Your task to perform on an android device: Go to privacy settings Image 0: 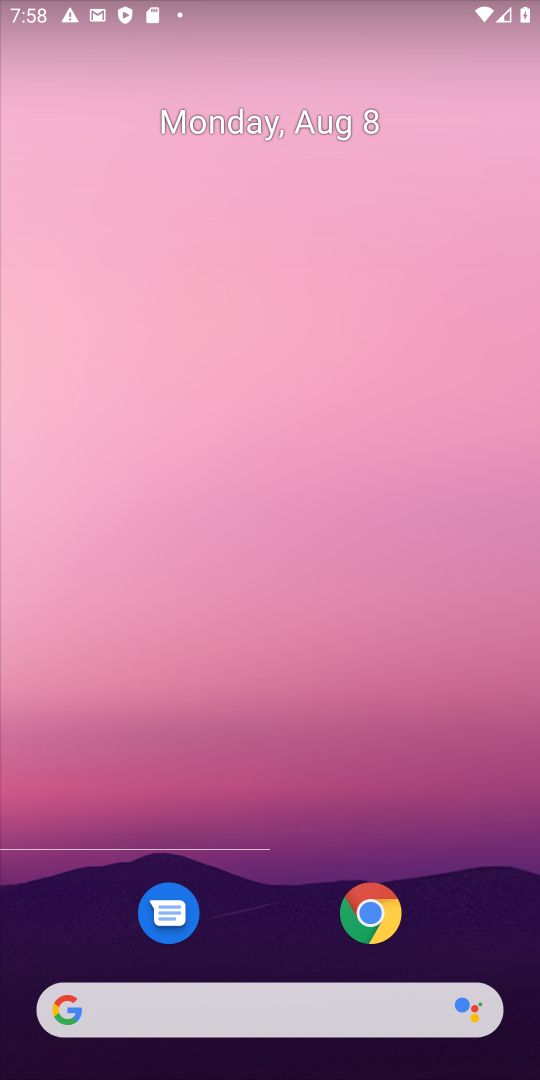
Step 0: press home button
Your task to perform on an android device: Go to privacy settings Image 1: 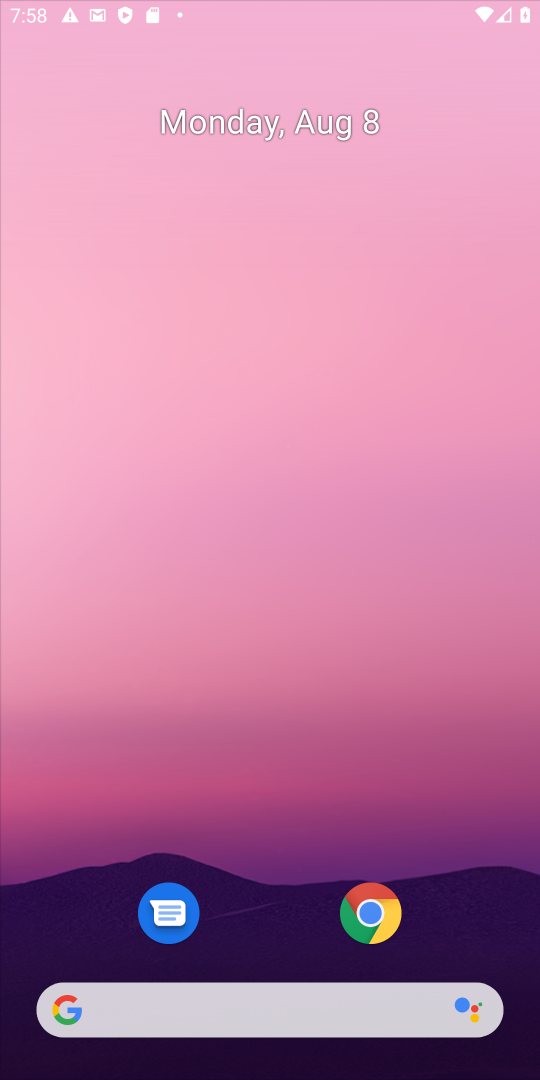
Step 1: drag from (286, 912) to (279, 661)
Your task to perform on an android device: Go to privacy settings Image 2: 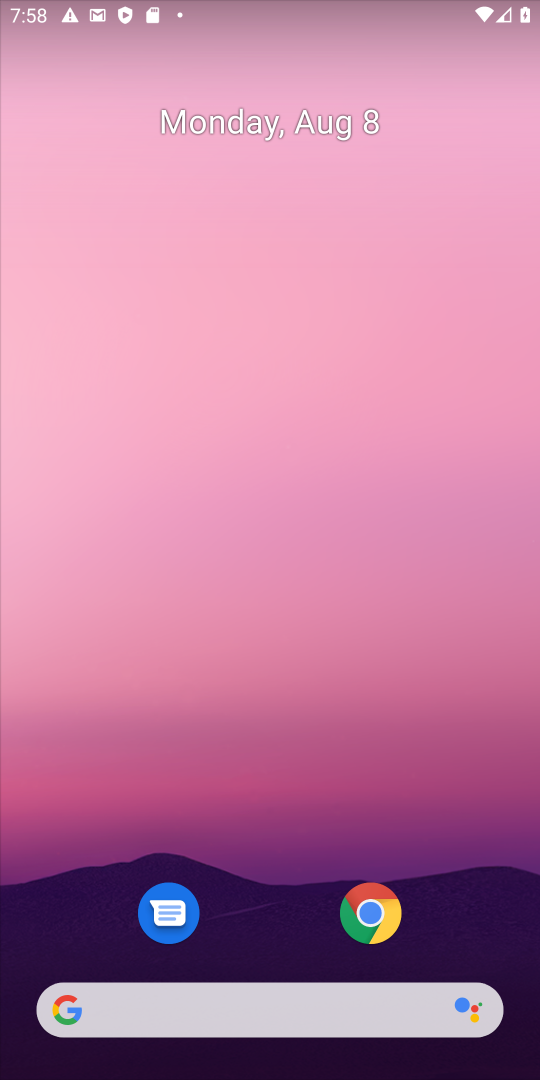
Step 2: drag from (279, 959) to (251, 108)
Your task to perform on an android device: Go to privacy settings Image 3: 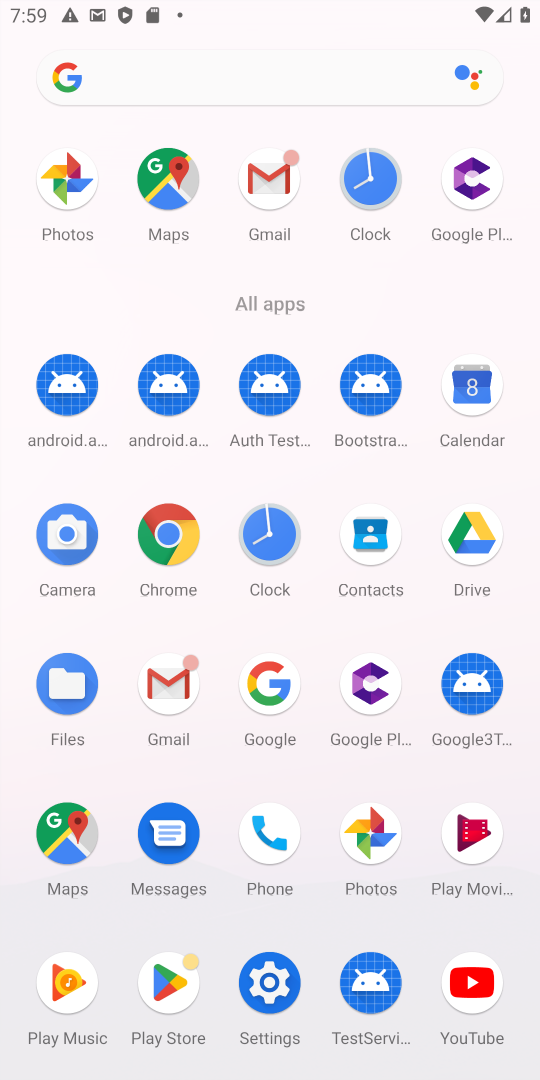
Step 3: click (258, 1019)
Your task to perform on an android device: Go to privacy settings Image 4: 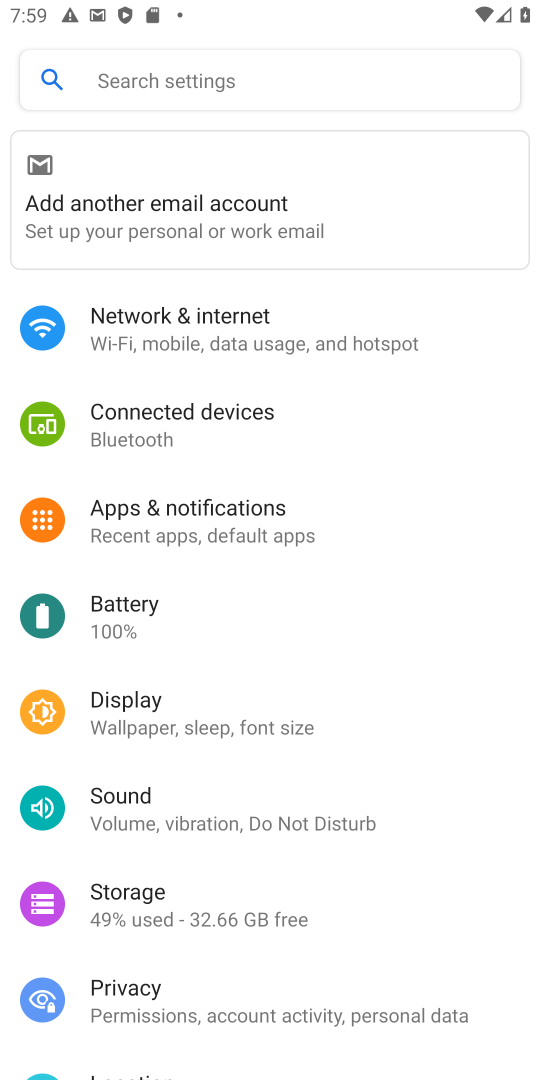
Step 4: click (201, 1007)
Your task to perform on an android device: Go to privacy settings Image 5: 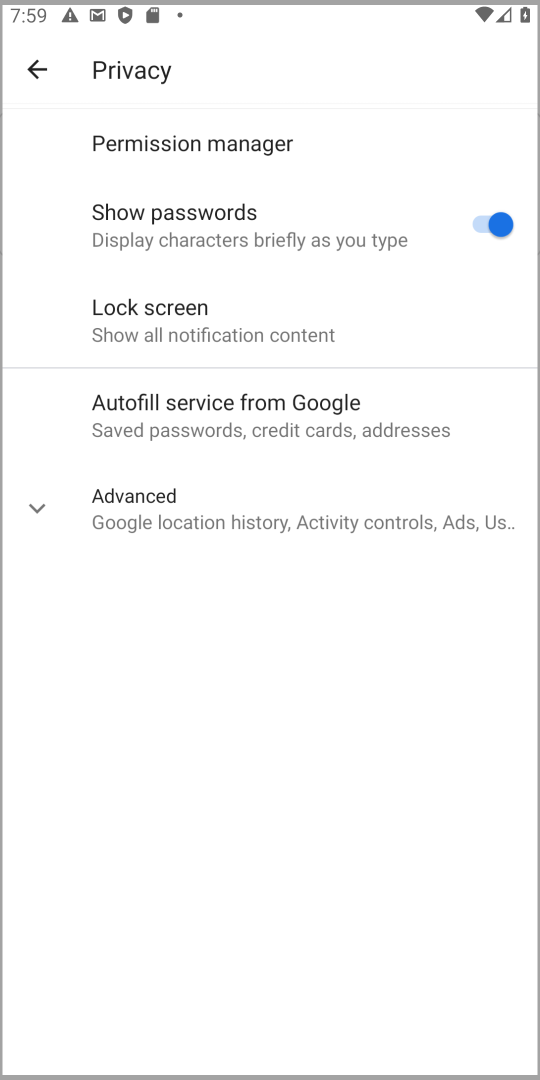
Step 5: task complete